Your task to perform on an android device: change alarm snooze length Image 0: 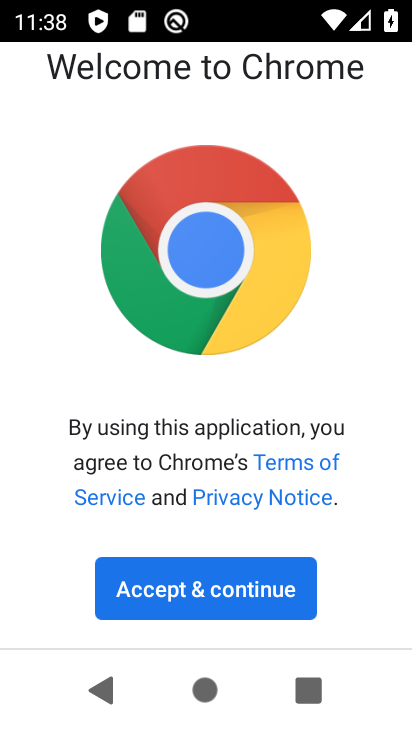
Step 0: press home button
Your task to perform on an android device: change alarm snooze length Image 1: 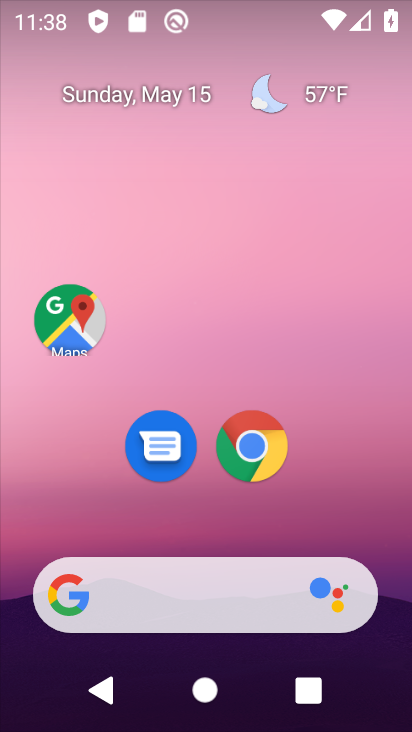
Step 1: drag from (198, 532) to (262, 11)
Your task to perform on an android device: change alarm snooze length Image 2: 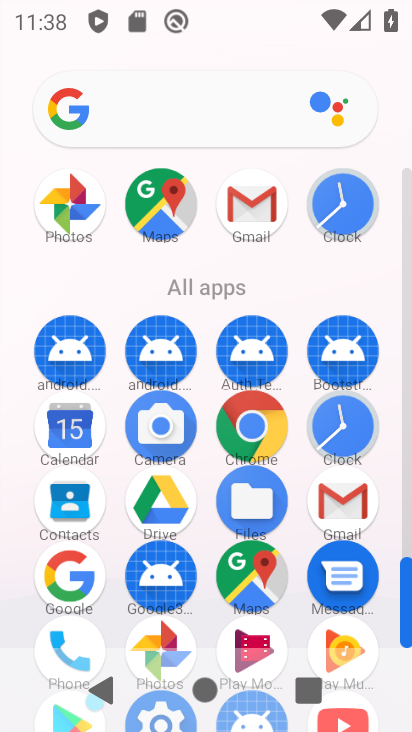
Step 2: click (351, 431)
Your task to perform on an android device: change alarm snooze length Image 3: 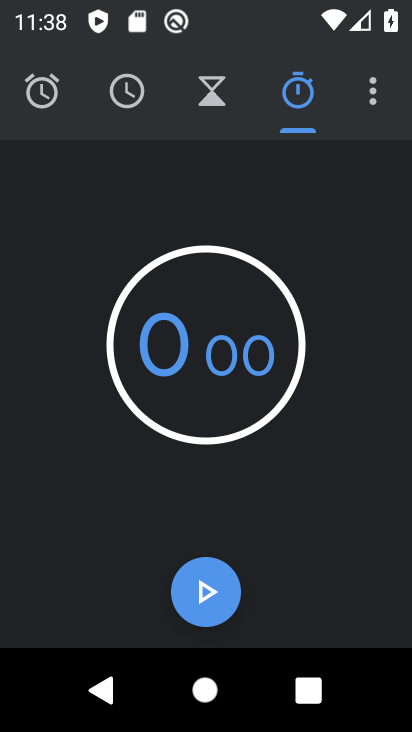
Step 3: click (376, 99)
Your task to perform on an android device: change alarm snooze length Image 4: 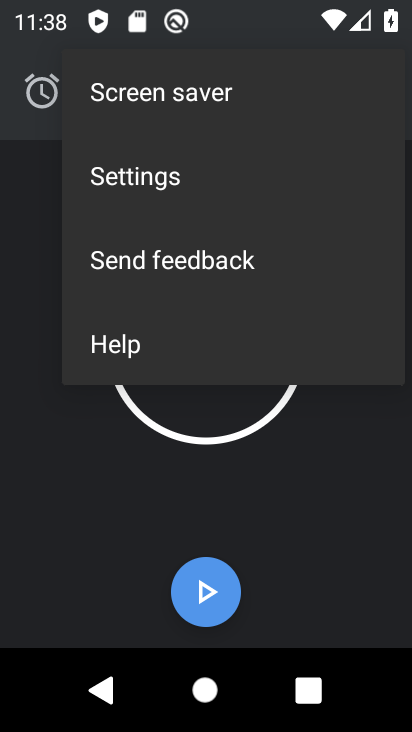
Step 4: click (147, 185)
Your task to perform on an android device: change alarm snooze length Image 5: 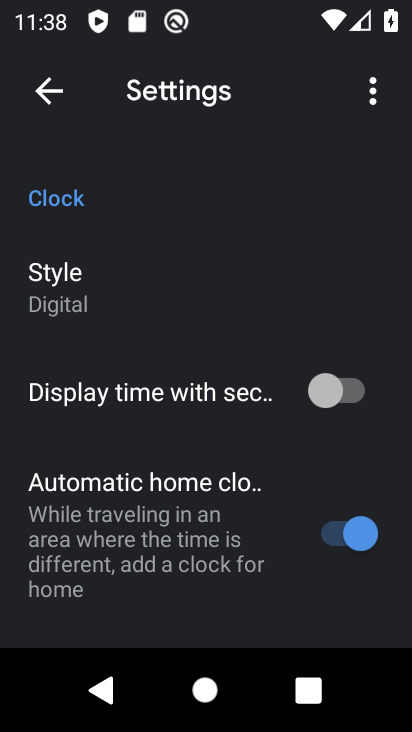
Step 5: drag from (121, 446) to (187, 199)
Your task to perform on an android device: change alarm snooze length Image 6: 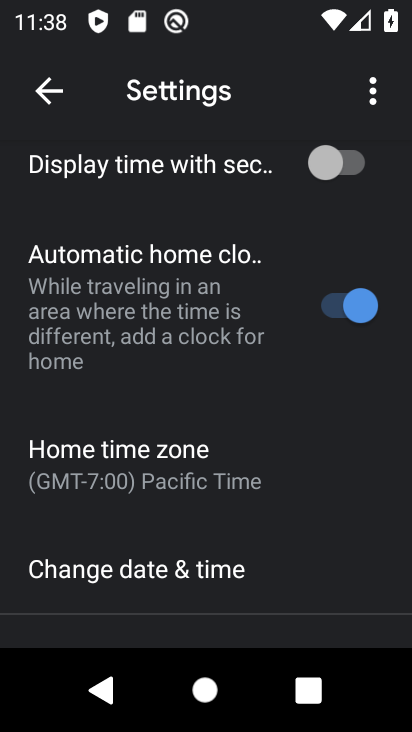
Step 6: drag from (203, 445) to (257, 139)
Your task to perform on an android device: change alarm snooze length Image 7: 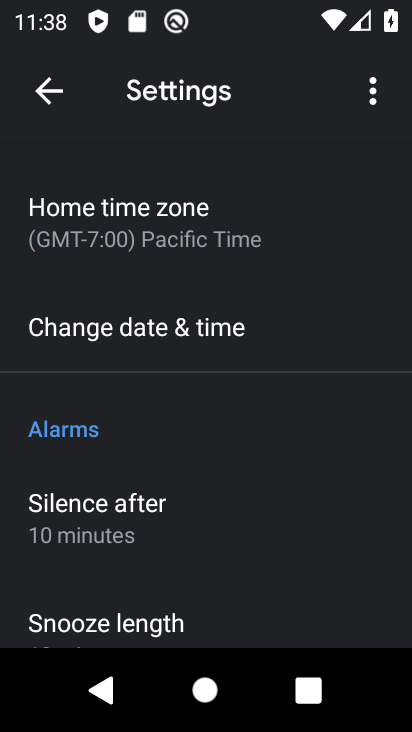
Step 7: drag from (169, 469) to (209, 298)
Your task to perform on an android device: change alarm snooze length Image 8: 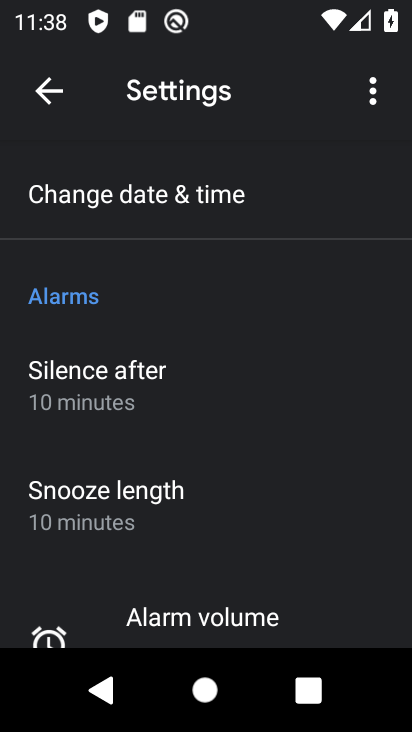
Step 8: click (164, 505)
Your task to perform on an android device: change alarm snooze length Image 9: 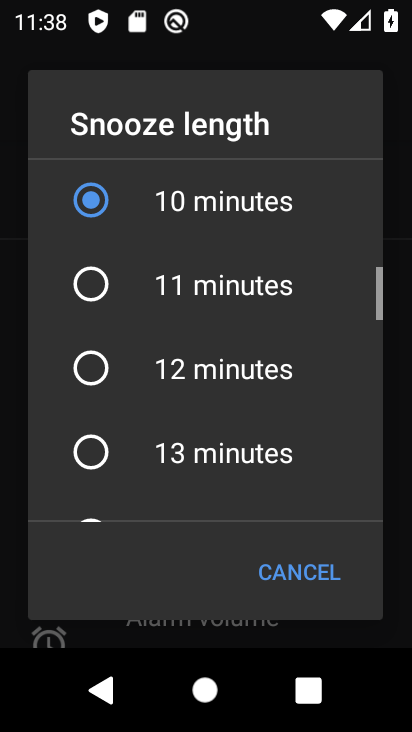
Step 9: drag from (167, 484) to (200, 358)
Your task to perform on an android device: change alarm snooze length Image 10: 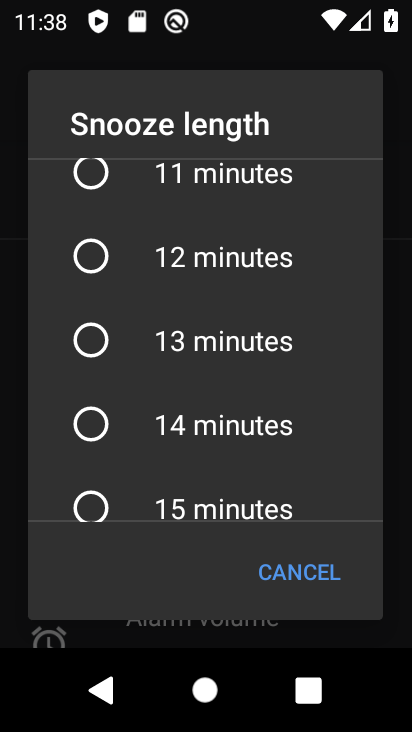
Step 10: click (94, 431)
Your task to perform on an android device: change alarm snooze length Image 11: 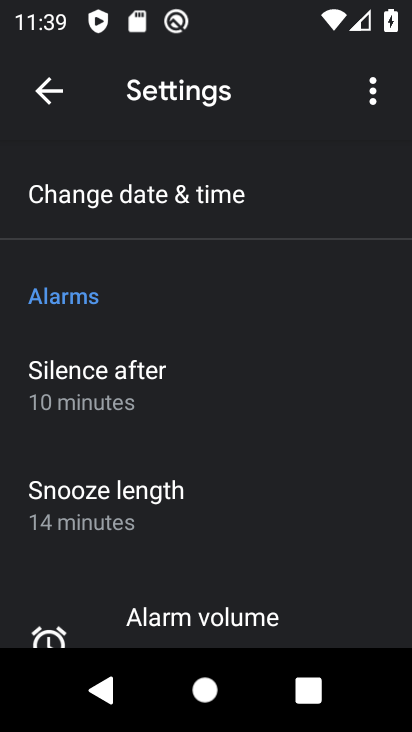
Step 11: task complete